Your task to perform on an android device: Open the web browser Image 0: 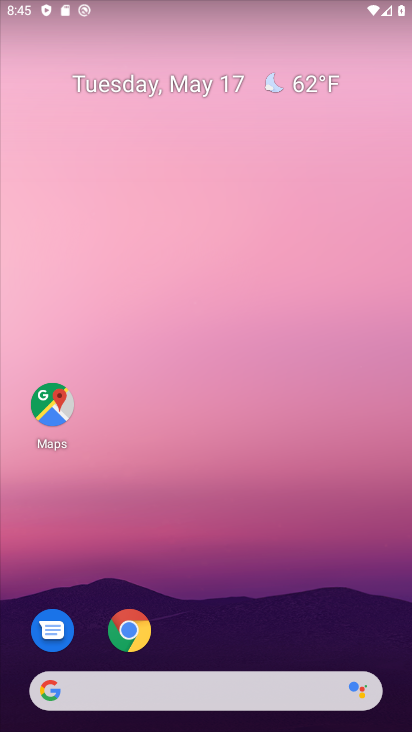
Step 0: click (137, 643)
Your task to perform on an android device: Open the web browser Image 1: 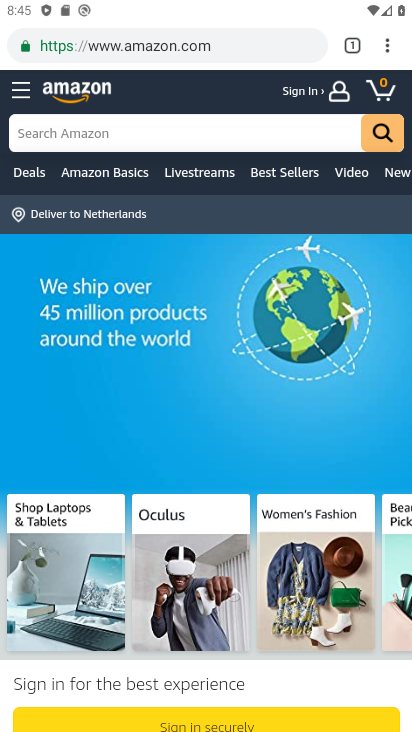
Step 1: task complete